Your task to perform on an android device: open app "Venmo" (install if not already installed) and enter user name: "bleedings@gmail.com" and password: "copied" Image 0: 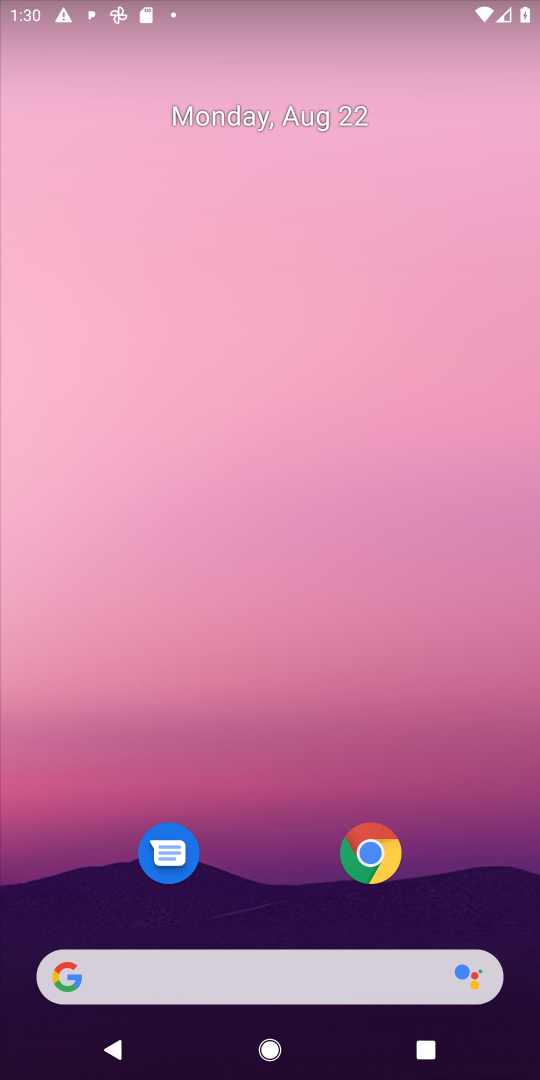
Step 0: drag from (277, 970) to (156, 538)
Your task to perform on an android device: open app "Venmo" (install if not already installed) and enter user name: "bleedings@gmail.com" and password: "copied" Image 1: 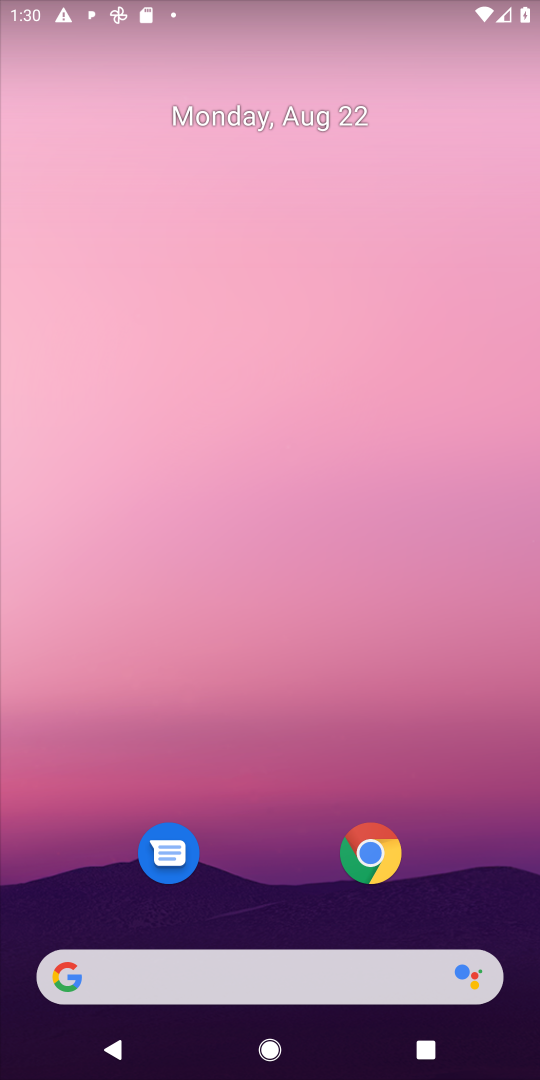
Step 1: drag from (318, 862) to (192, 16)
Your task to perform on an android device: open app "Venmo" (install if not already installed) and enter user name: "bleedings@gmail.com" and password: "copied" Image 2: 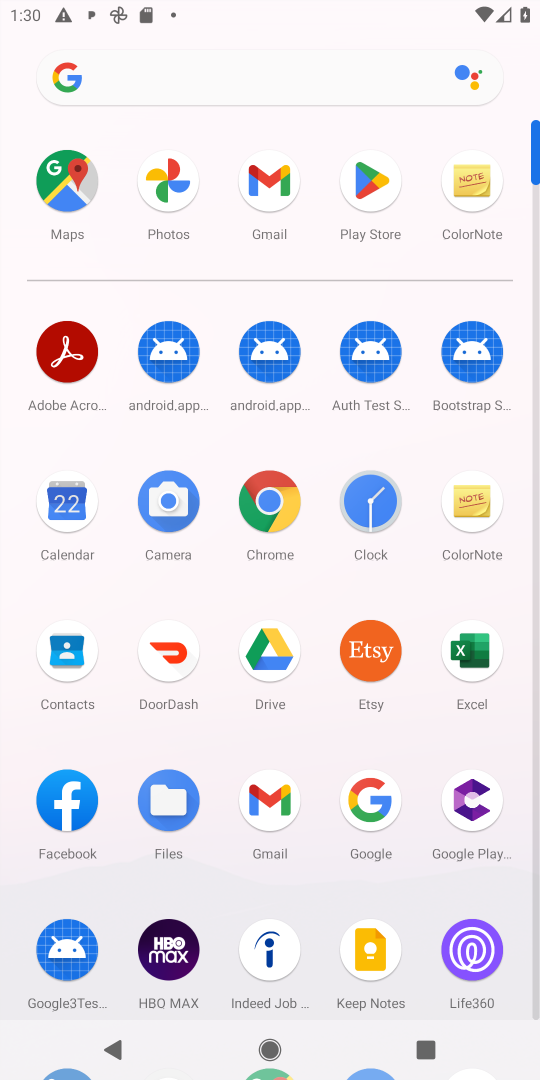
Step 2: click (366, 176)
Your task to perform on an android device: open app "Venmo" (install if not already installed) and enter user name: "bleedings@gmail.com" and password: "copied" Image 3: 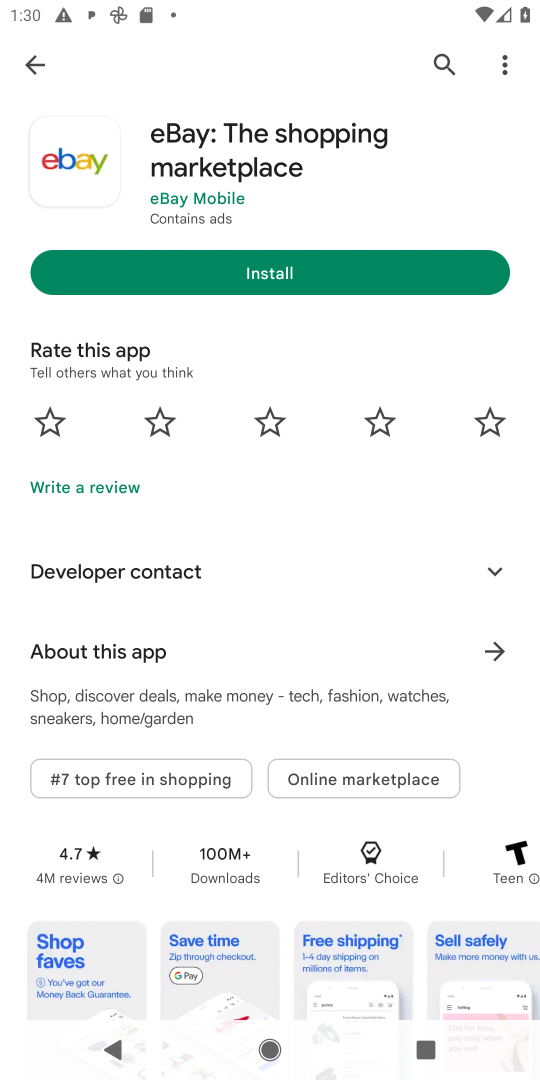
Step 3: click (17, 46)
Your task to perform on an android device: open app "Venmo" (install if not already installed) and enter user name: "bleedings@gmail.com" and password: "copied" Image 4: 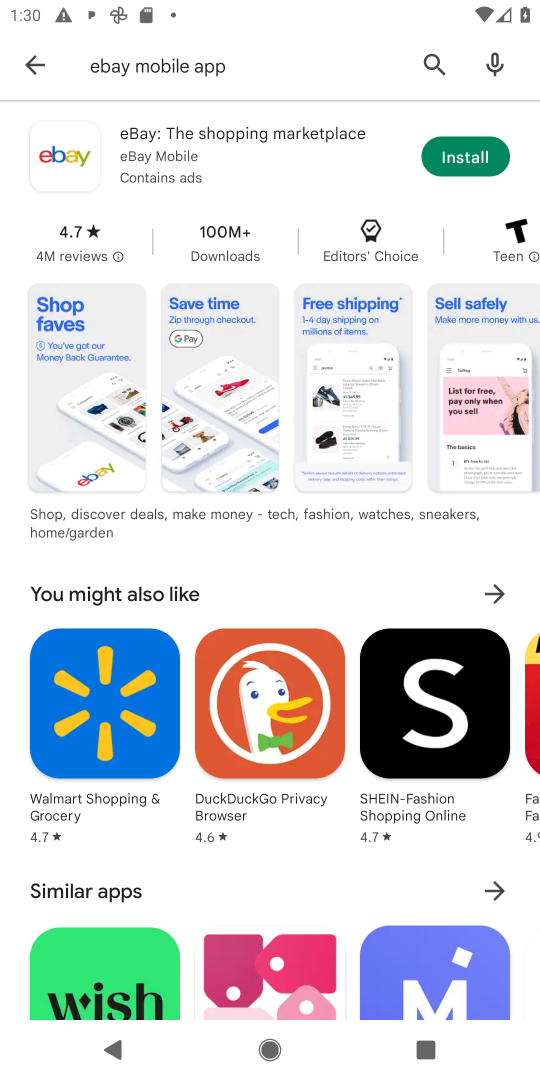
Step 4: click (52, 52)
Your task to perform on an android device: open app "Venmo" (install if not already installed) and enter user name: "bleedings@gmail.com" and password: "copied" Image 5: 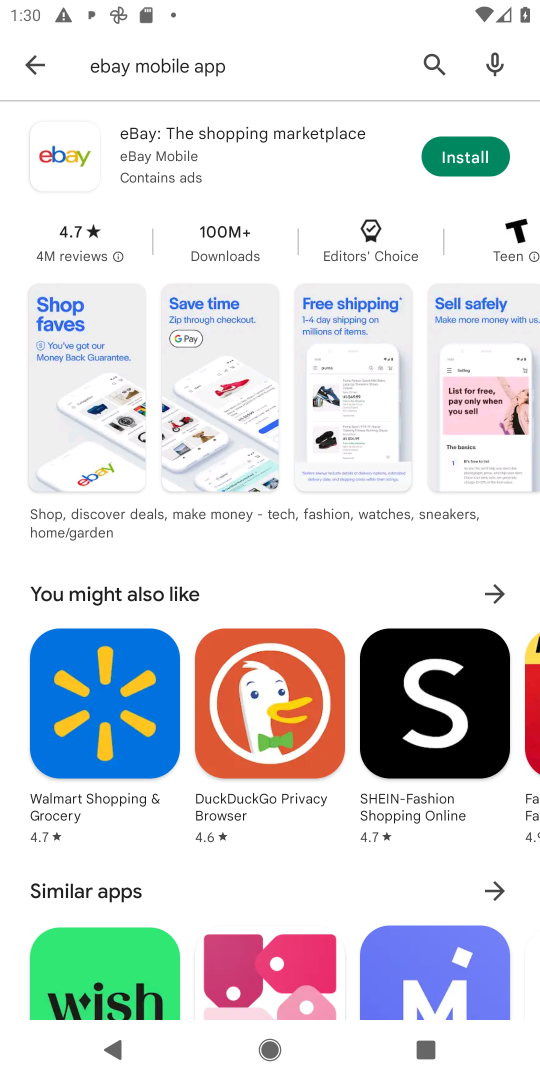
Step 5: click (25, 63)
Your task to perform on an android device: open app "Venmo" (install if not already installed) and enter user name: "bleedings@gmail.com" and password: "copied" Image 6: 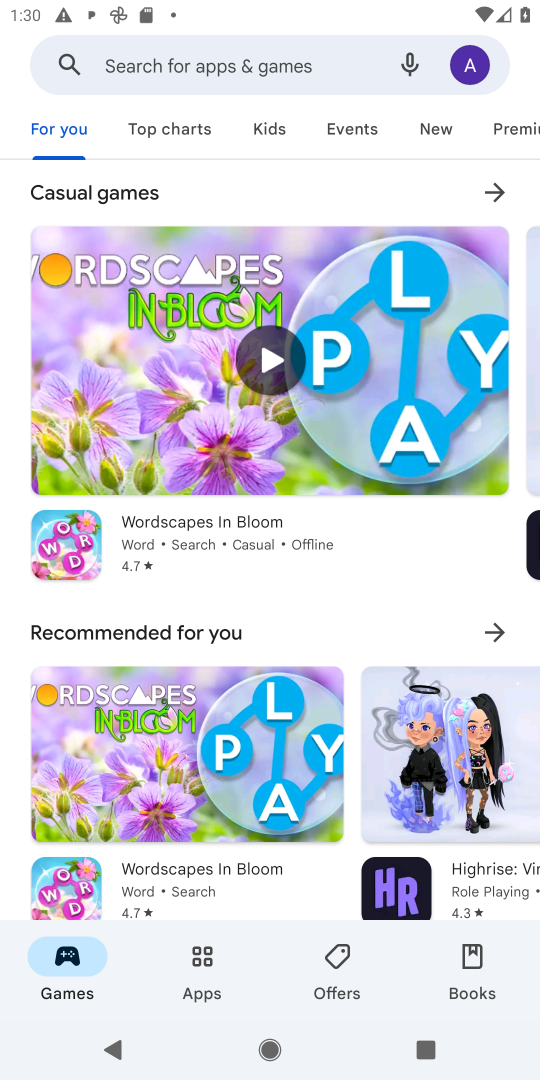
Step 6: click (202, 62)
Your task to perform on an android device: open app "Venmo" (install if not already installed) and enter user name: "bleedings@gmail.com" and password: "copied" Image 7: 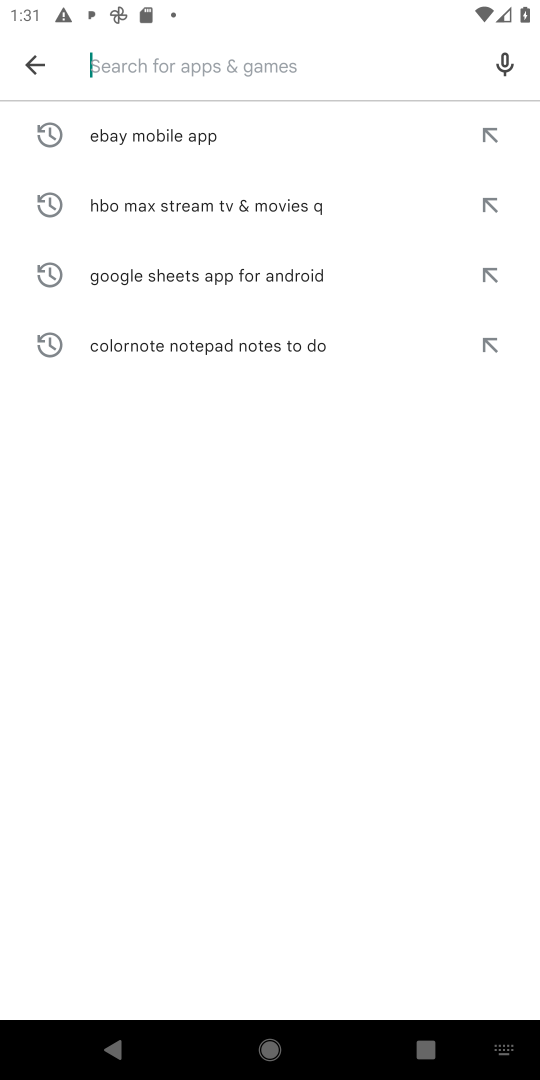
Step 7: type "Venmo "
Your task to perform on an android device: open app "Venmo" (install if not already installed) and enter user name: "bleedings@gmail.com" and password: "copied" Image 8: 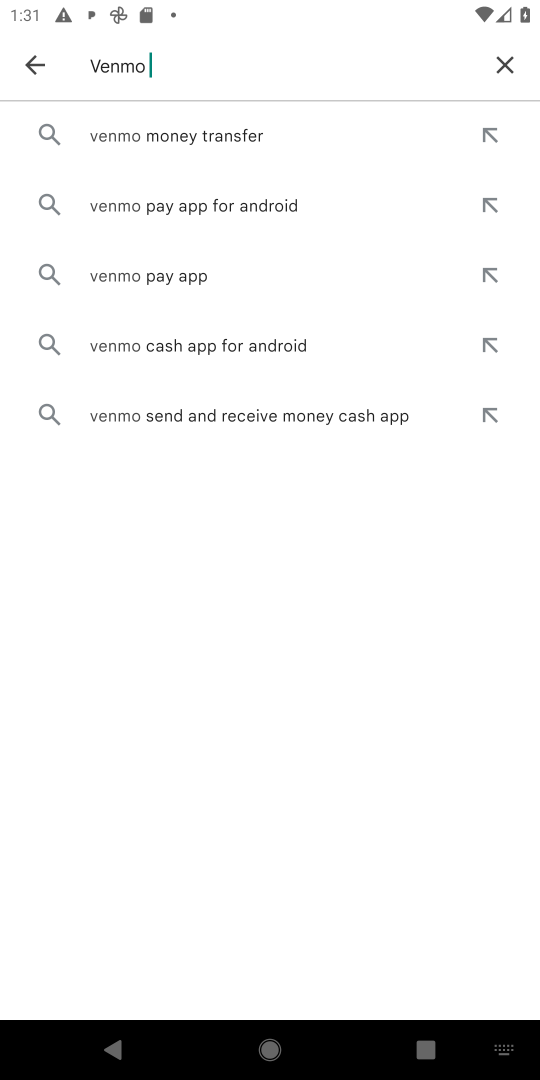
Step 8: click (193, 143)
Your task to perform on an android device: open app "Venmo" (install if not already installed) and enter user name: "bleedings@gmail.com" and password: "copied" Image 9: 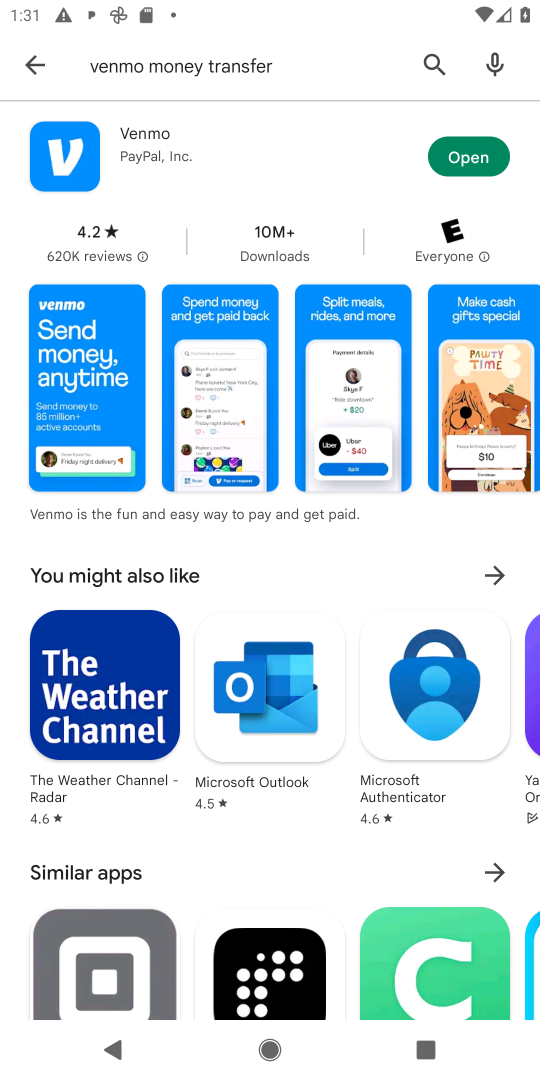
Step 9: click (424, 152)
Your task to perform on an android device: open app "Venmo" (install if not already installed) and enter user name: "bleedings@gmail.com" and password: "copied" Image 10: 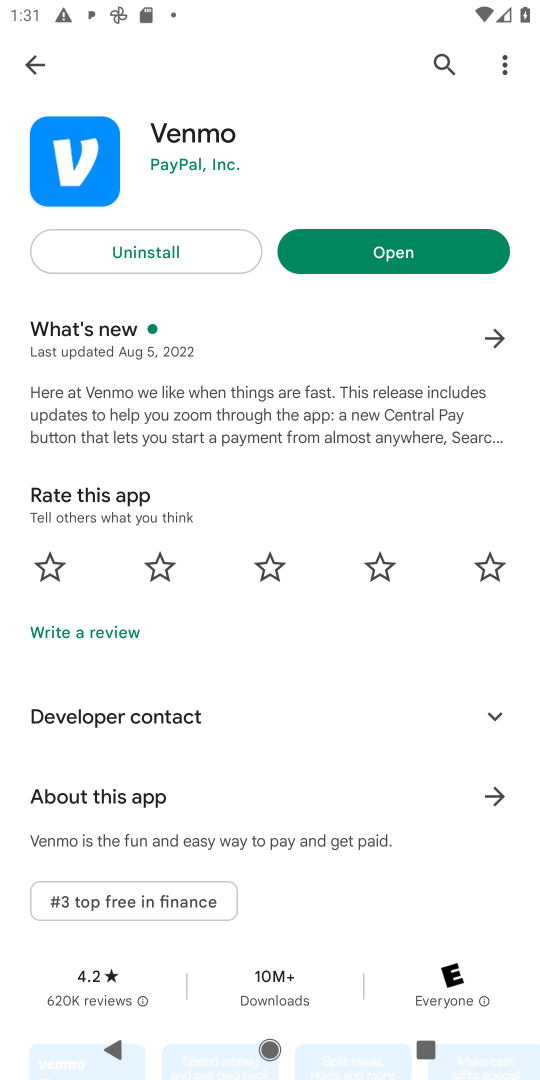
Step 10: click (372, 242)
Your task to perform on an android device: open app "Venmo" (install if not already installed) and enter user name: "bleedings@gmail.com" and password: "copied" Image 11: 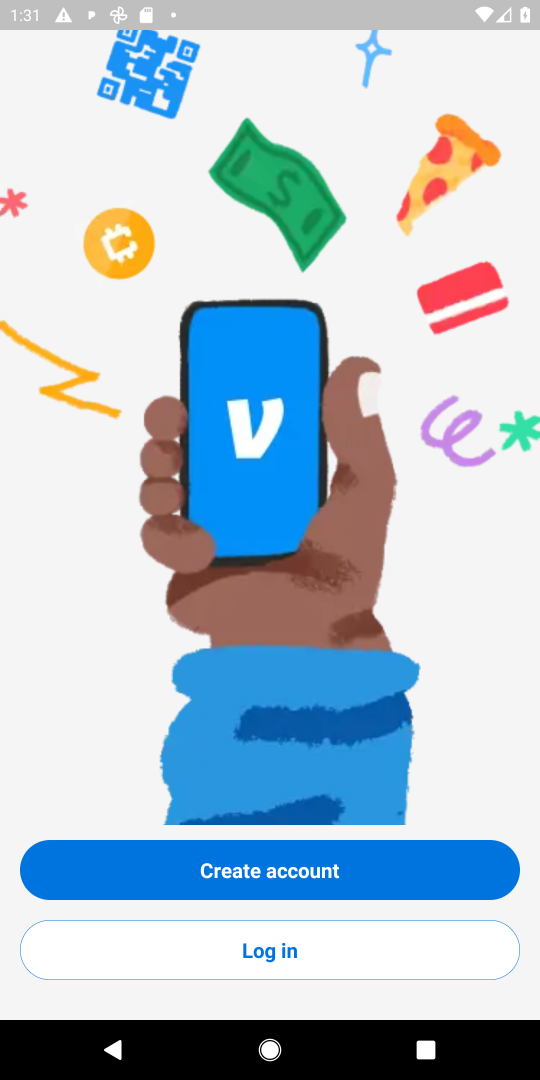
Step 11: click (328, 953)
Your task to perform on an android device: open app "Venmo" (install if not already installed) and enter user name: "bleedings@gmail.com" and password: "copied" Image 12: 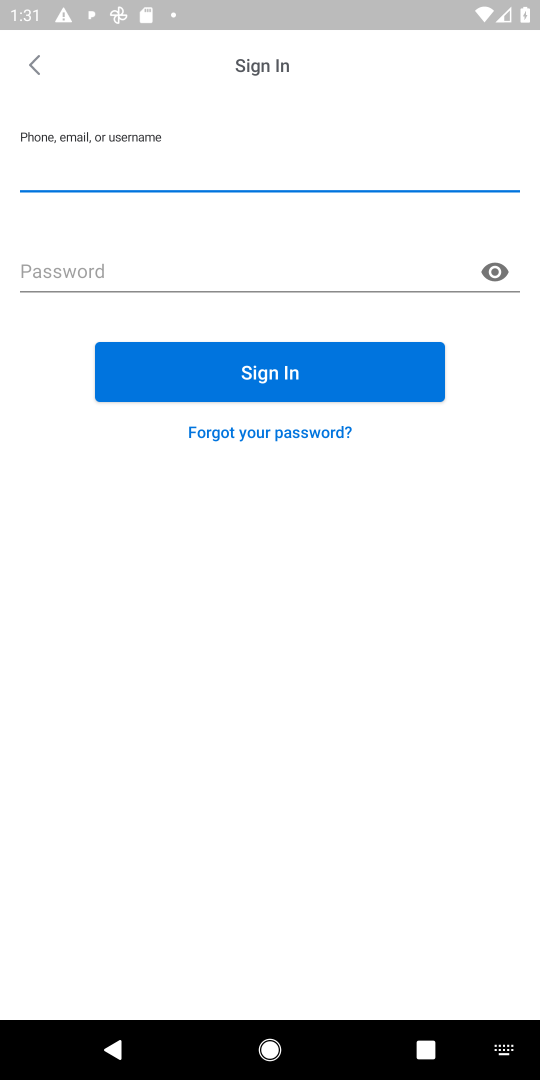
Step 12: click (294, 156)
Your task to perform on an android device: open app "Venmo" (install if not already installed) and enter user name: "bleedings@gmail.com" and password: "copied" Image 13: 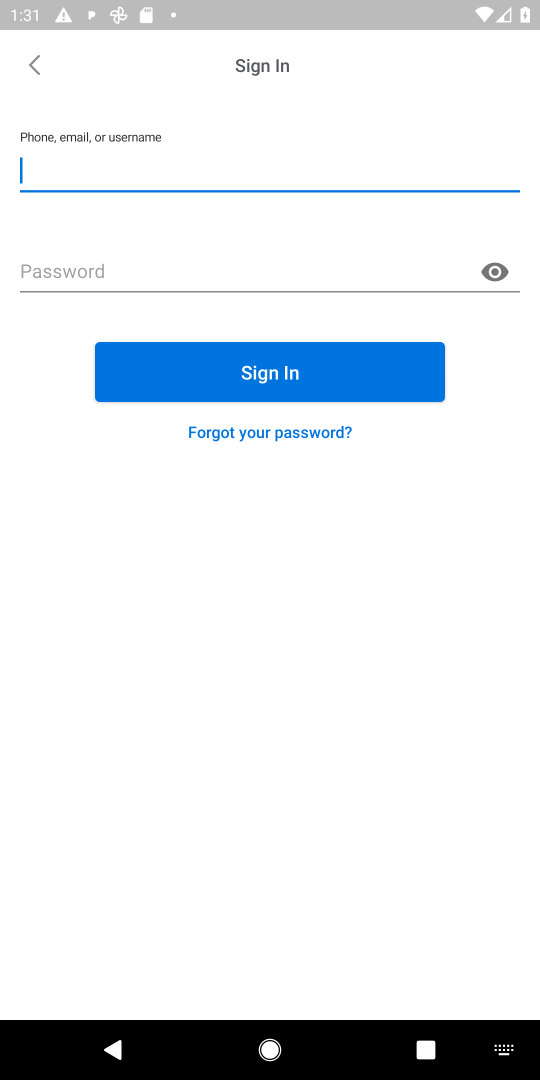
Step 13: type "bleedings@gmail.com "
Your task to perform on an android device: open app "Venmo" (install if not already installed) and enter user name: "bleedings@gmail.com" and password: "copied" Image 14: 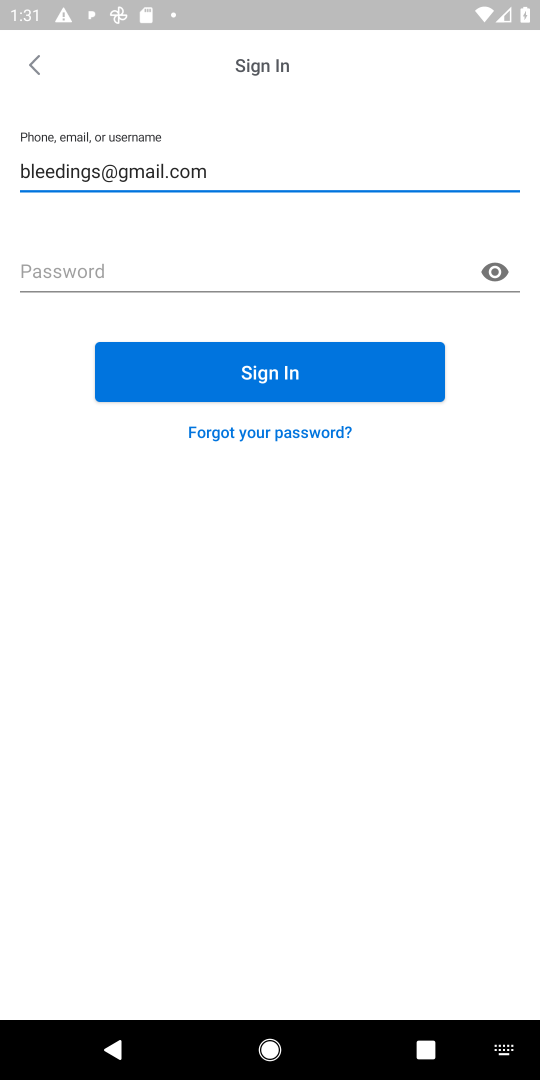
Step 14: click (170, 272)
Your task to perform on an android device: open app "Venmo" (install if not already installed) and enter user name: "bleedings@gmail.com" and password: "copied" Image 15: 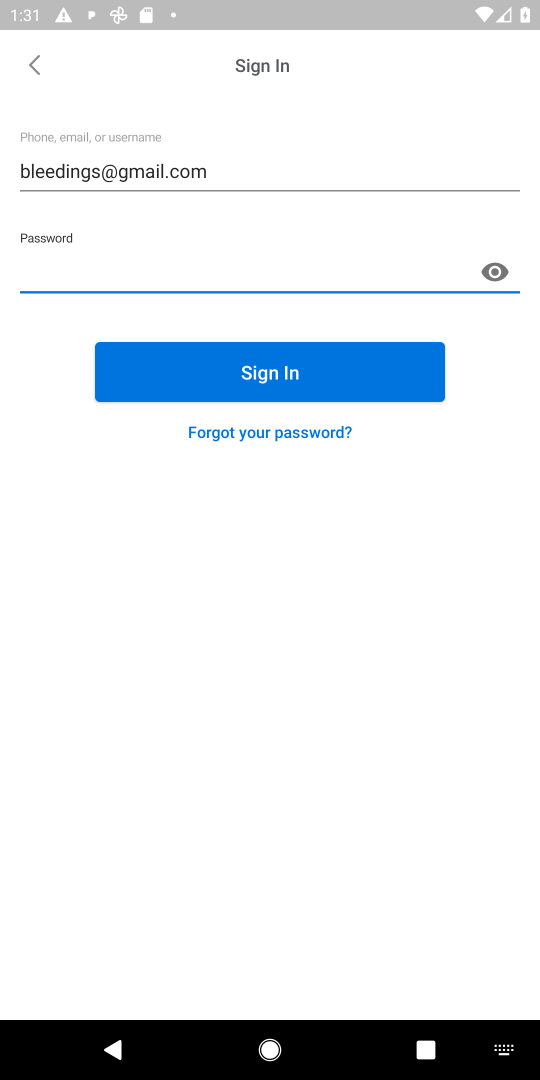
Step 15: type "copied "
Your task to perform on an android device: open app "Venmo" (install if not already installed) and enter user name: "bleedings@gmail.com" and password: "copied" Image 16: 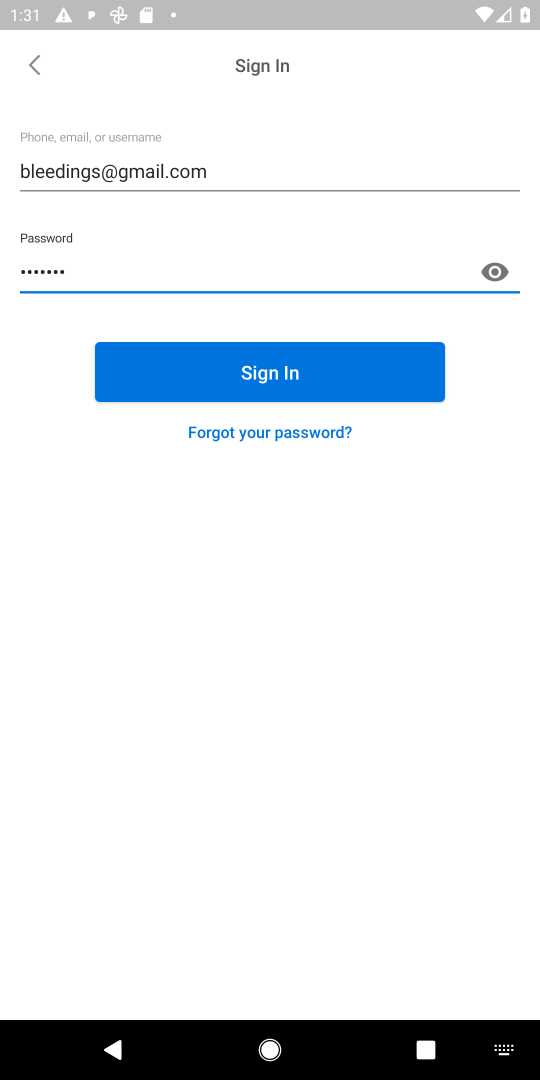
Step 16: click (357, 344)
Your task to perform on an android device: open app "Venmo" (install if not already installed) and enter user name: "bleedings@gmail.com" and password: "copied" Image 17: 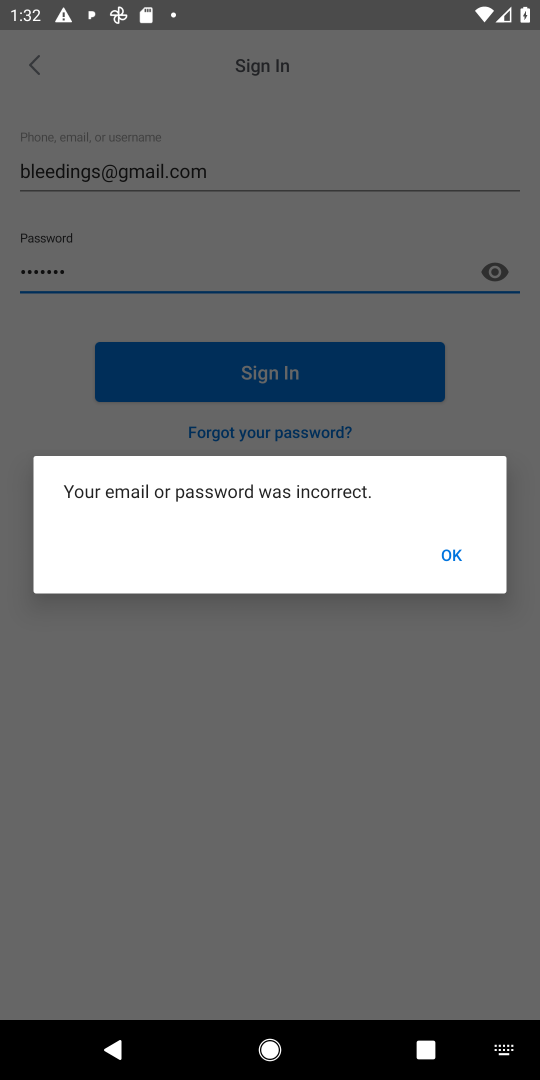
Step 17: click (447, 558)
Your task to perform on an android device: open app "Venmo" (install if not already installed) and enter user name: "bleedings@gmail.com" and password: "copied" Image 18: 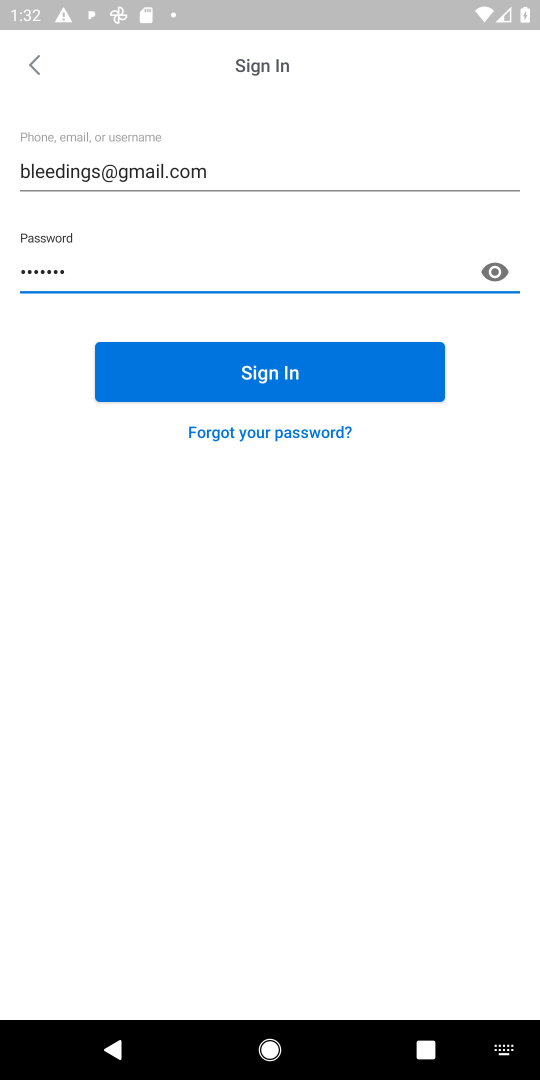
Step 18: task complete